Your task to perform on an android device: toggle sleep mode Image 0: 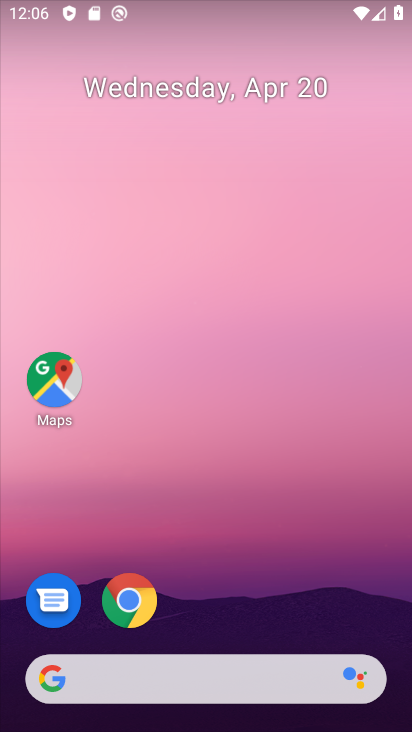
Step 0: drag from (220, 578) to (245, 52)
Your task to perform on an android device: toggle sleep mode Image 1: 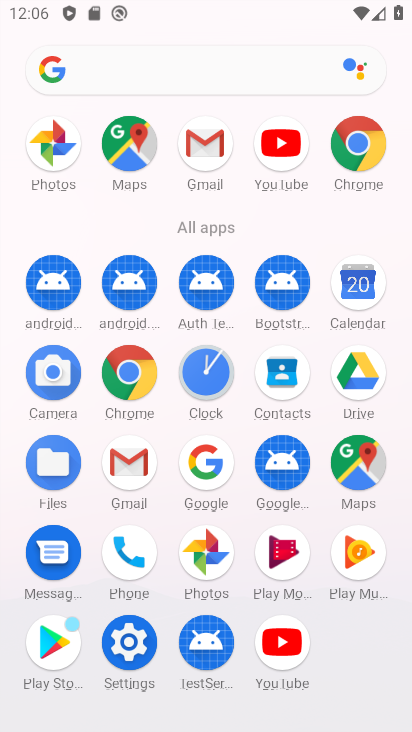
Step 1: click (143, 633)
Your task to perform on an android device: toggle sleep mode Image 2: 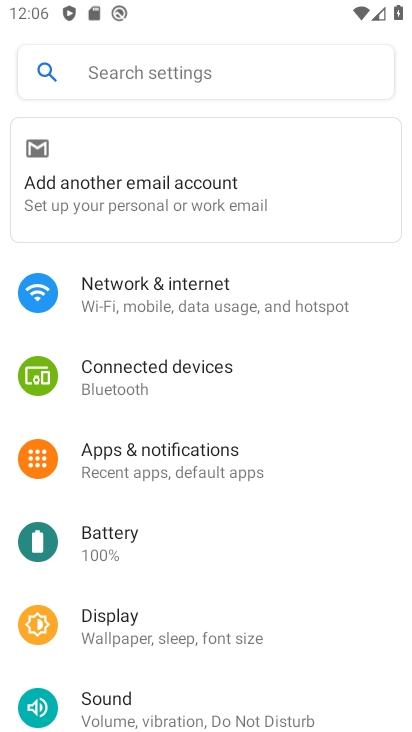
Step 2: click (167, 72)
Your task to perform on an android device: toggle sleep mode Image 3: 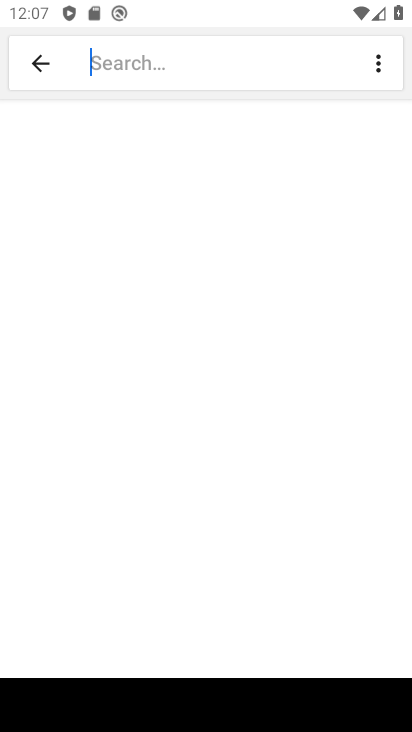
Step 3: type "sleep mode"
Your task to perform on an android device: toggle sleep mode Image 4: 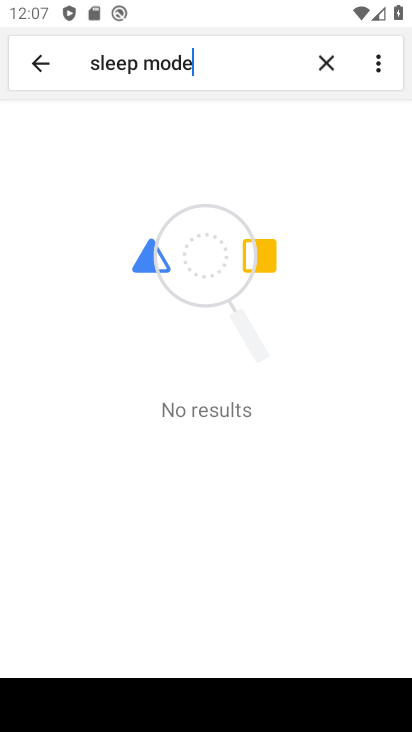
Step 4: task complete